Your task to perform on an android device: Go to accessibility settings Image 0: 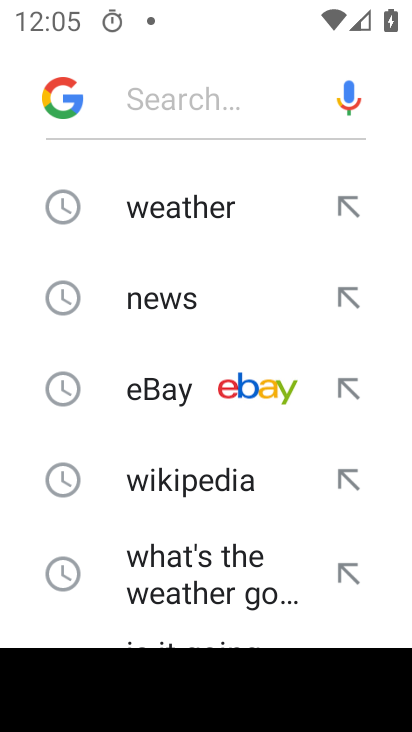
Step 0: press back button
Your task to perform on an android device: Go to accessibility settings Image 1: 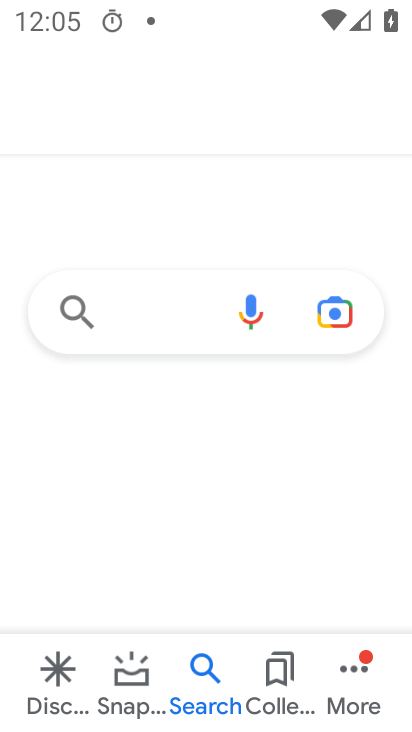
Step 1: press back button
Your task to perform on an android device: Go to accessibility settings Image 2: 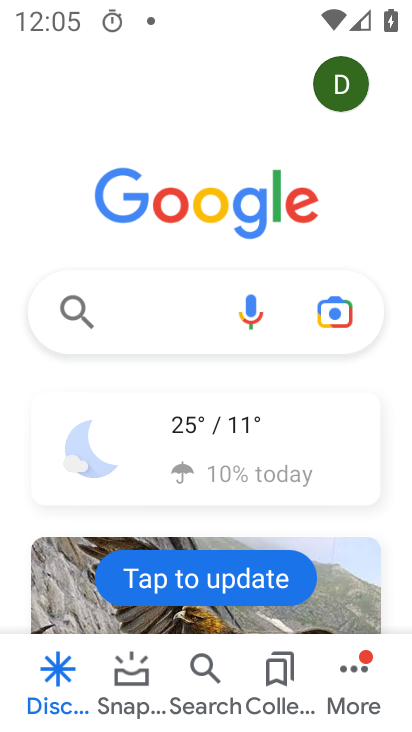
Step 2: press back button
Your task to perform on an android device: Go to accessibility settings Image 3: 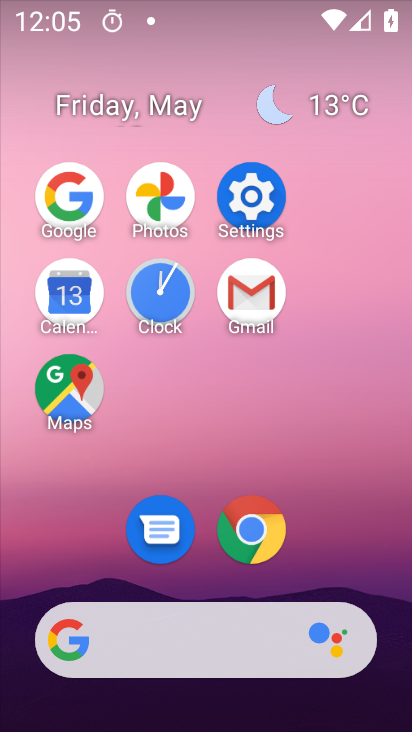
Step 3: click (273, 184)
Your task to perform on an android device: Go to accessibility settings Image 4: 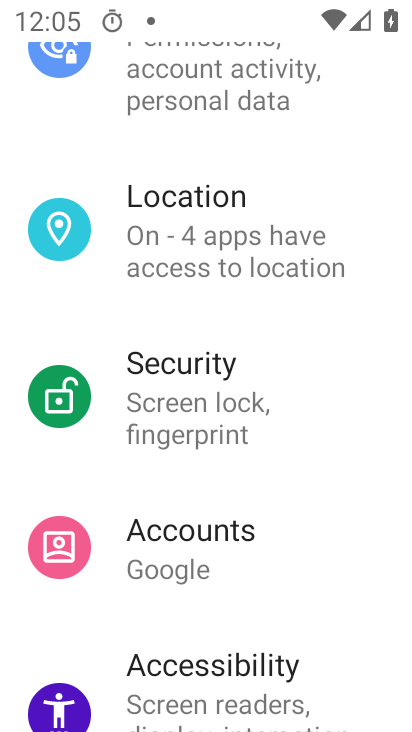
Step 4: click (257, 667)
Your task to perform on an android device: Go to accessibility settings Image 5: 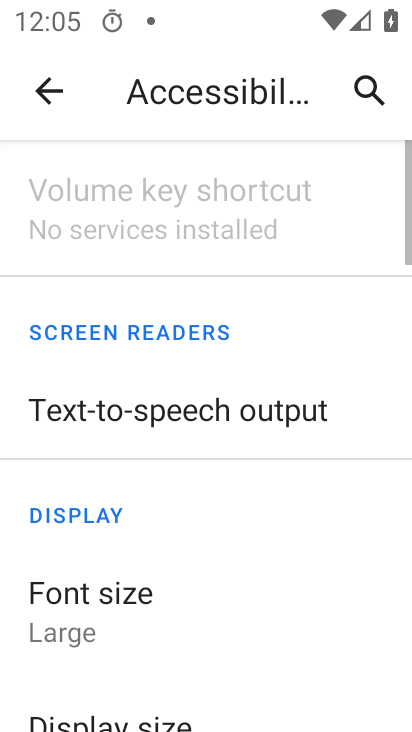
Step 5: task complete